Your task to perform on an android device: change the clock display to digital Image 0: 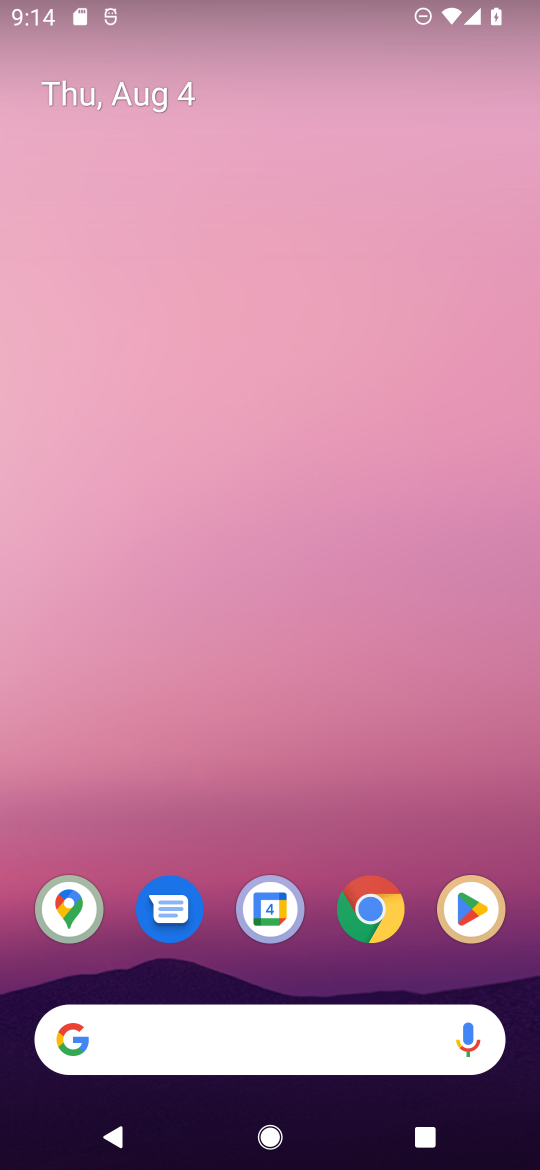
Step 0: press home button
Your task to perform on an android device: change the clock display to digital Image 1: 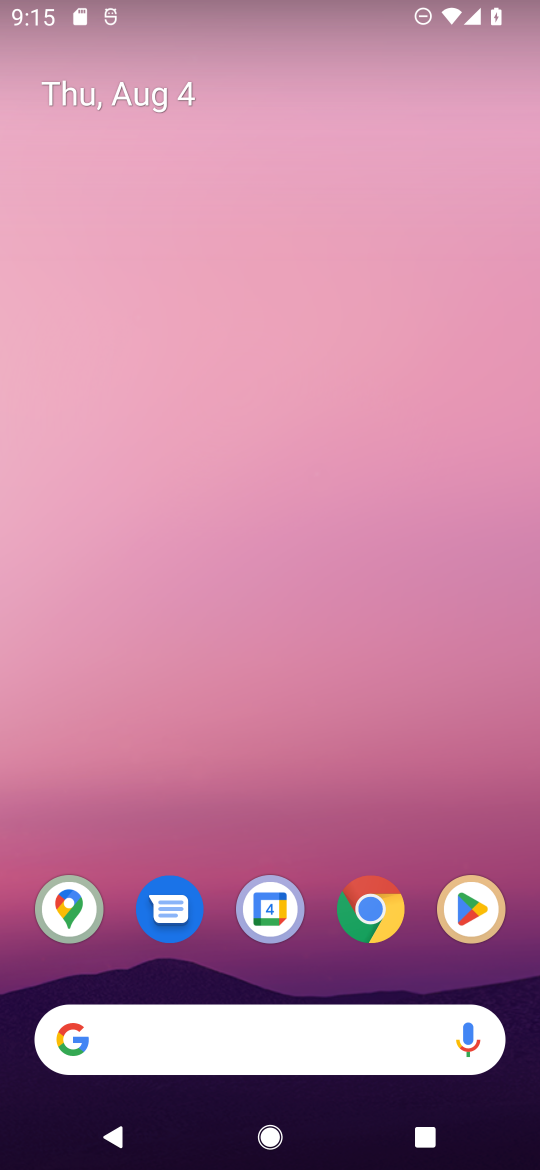
Step 1: drag from (332, 496) to (352, 209)
Your task to perform on an android device: change the clock display to digital Image 2: 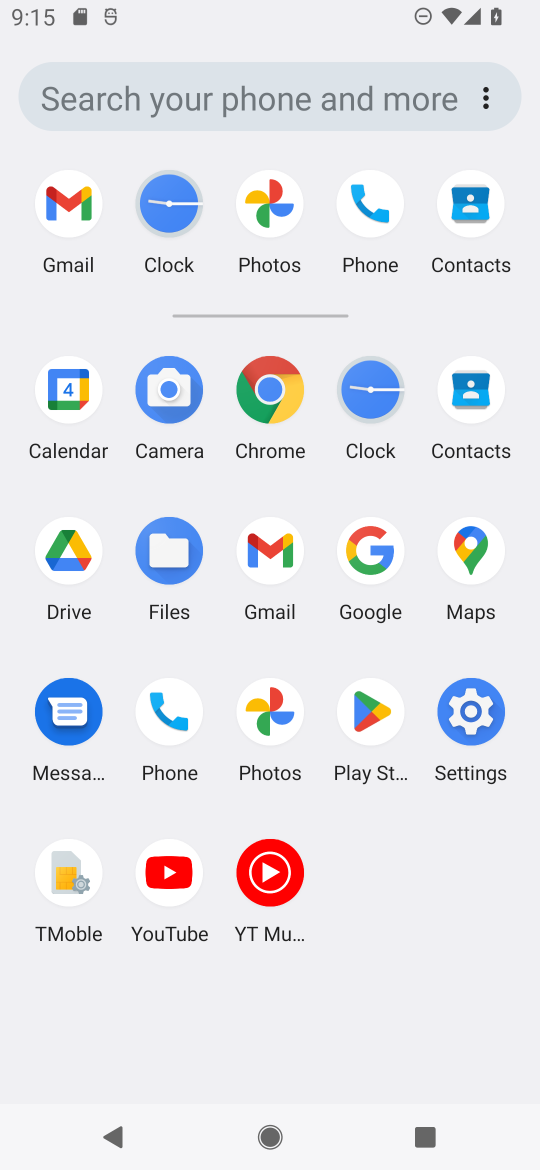
Step 2: click (367, 404)
Your task to perform on an android device: change the clock display to digital Image 3: 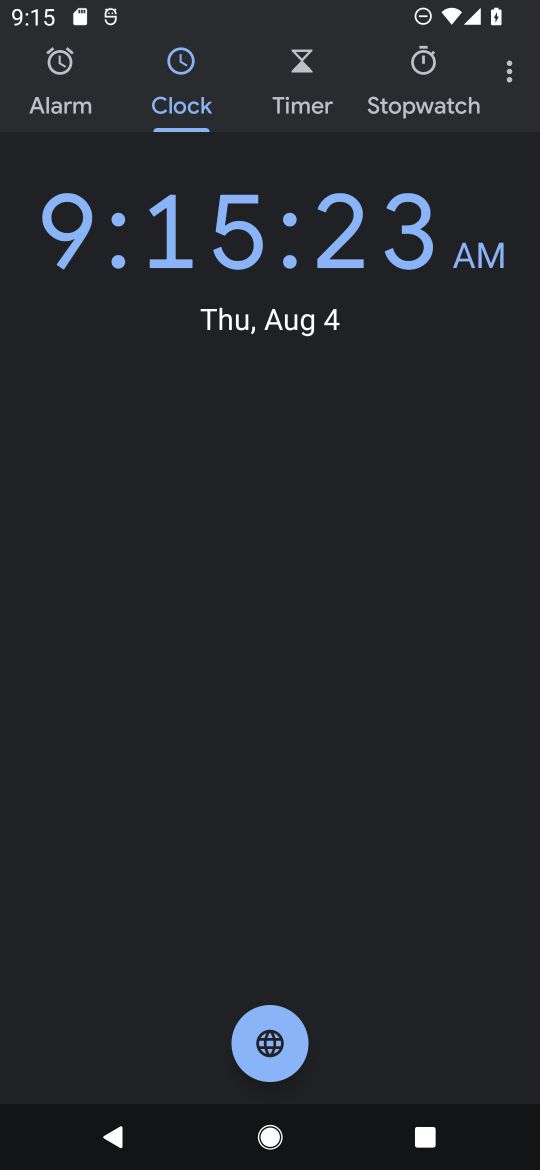
Step 3: click (513, 74)
Your task to perform on an android device: change the clock display to digital Image 4: 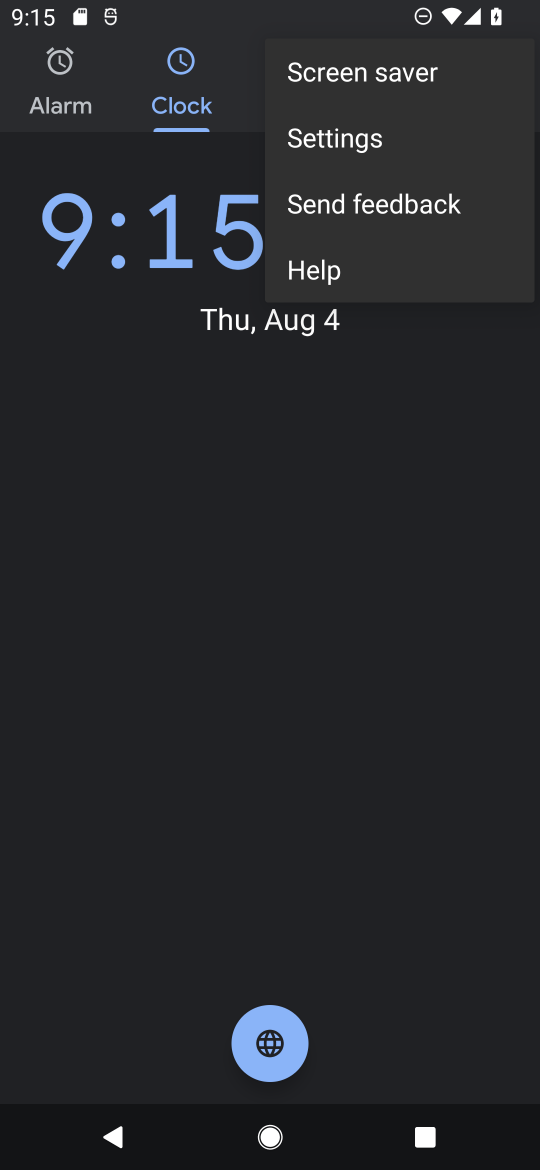
Step 4: click (395, 134)
Your task to perform on an android device: change the clock display to digital Image 5: 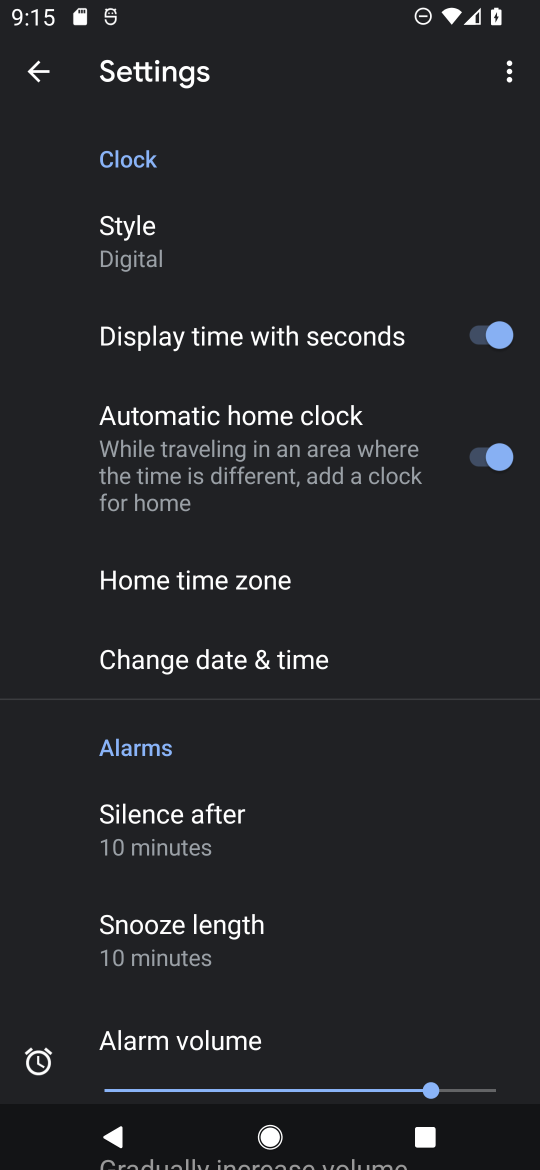
Step 5: task complete